Your task to perform on an android device: Go to network settings Image 0: 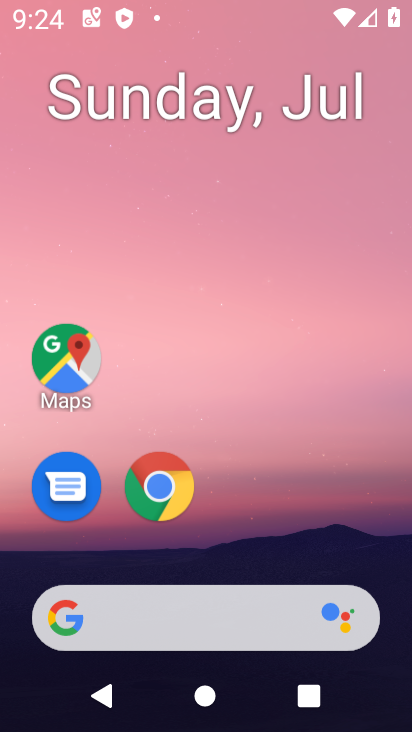
Step 0: press home button
Your task to perform on an android device: Go to network settings Image 1: 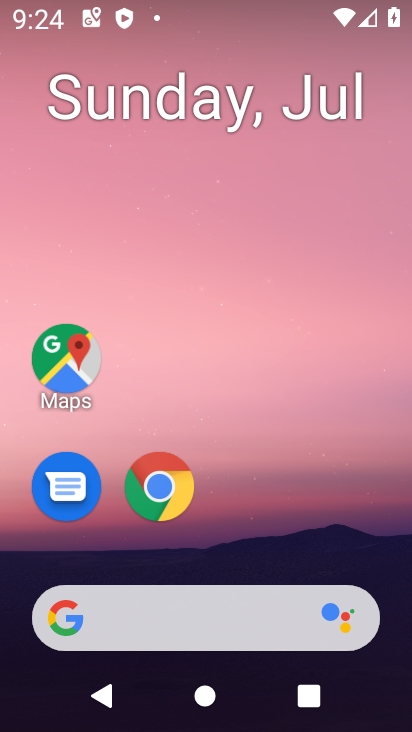
Step 1: drag from (382, 542) to (356, 90)
Your task to perform on an android device: Go to network settings Image 2: 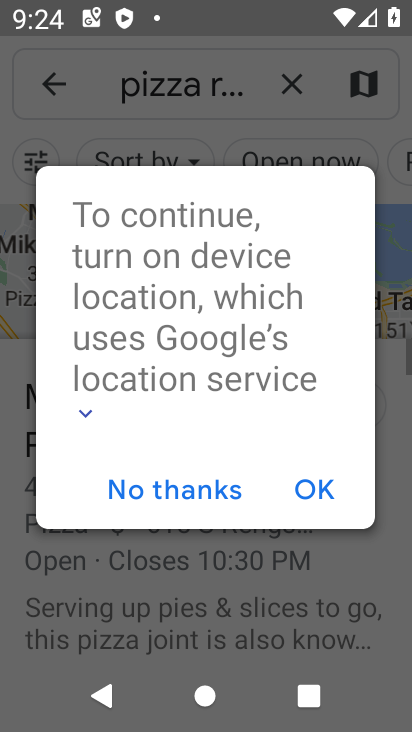
Step 2: click (195, 486)
Your task to perform on an android device: Go to network settings Image 3: 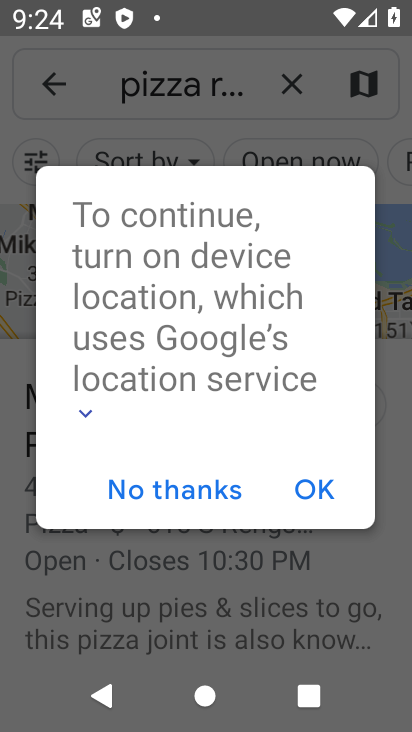
Step 3: press home button
Your task to perform on an android device: Go to network settings Image 4: 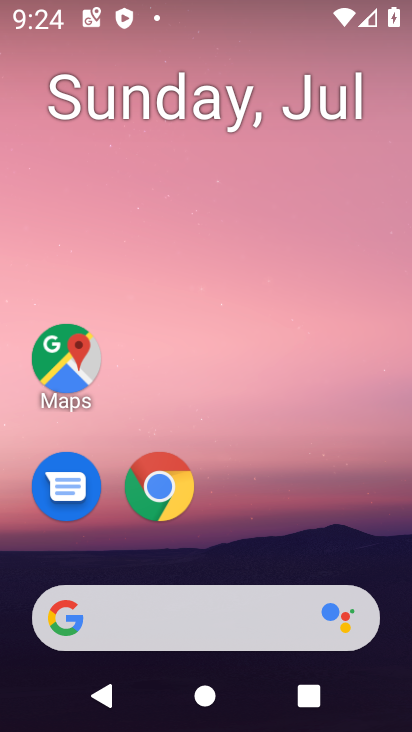
Step 4: drag from (371, 529) to (391, 151)
Your task to perform on an android device: Go to network settings Image 5: 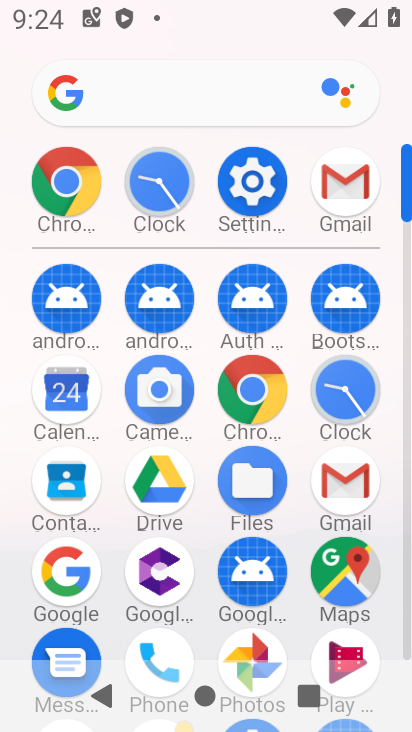
Step 5: click (252, 188)
Your task to perform on an android device: Go to network settings Image 6: 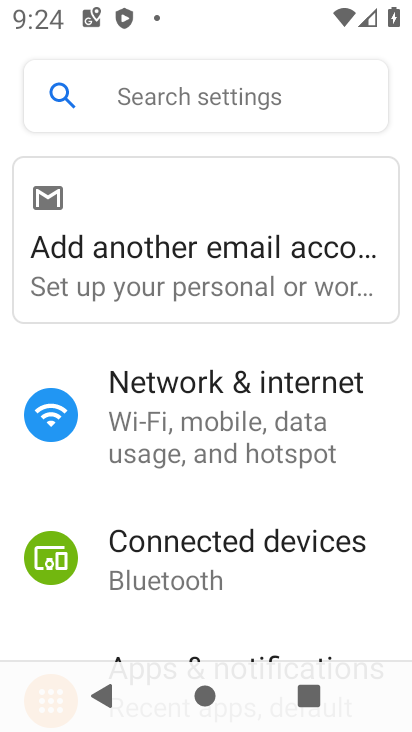
Step 6: click (229, 413)
Your task to perform on an android device: Go to network settings Image 7: 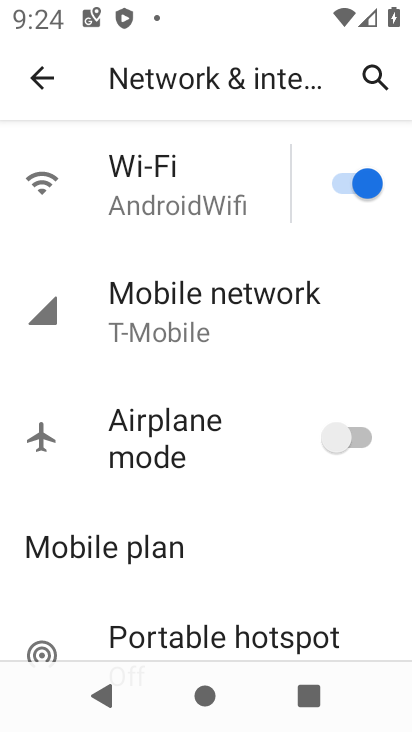
Step 7: click (196, 201)
Your task to perform on an android device: Go to network settings Image 8: 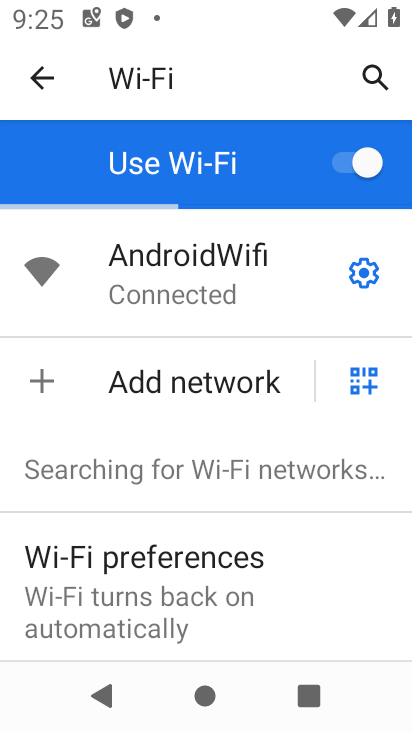
Step 8: task complete